Your task to perform on an android device: open the mobile data screen to see how much data has been used Image 0: 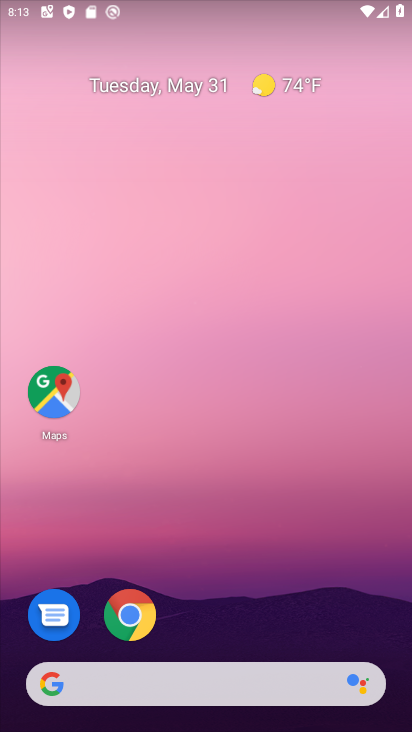
Step 0: drag from (145, 680) to (337, 37)
Your task to perform on an android device: open the mobile data screen to see how much data has been used Image 1: 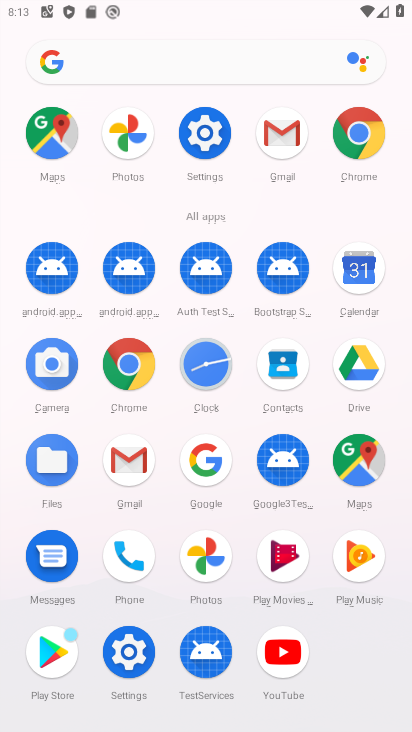
Step 1: click (212, 128)
Your task to perform on an android device: open the mobile data screen to see how much data has been used Image 2: 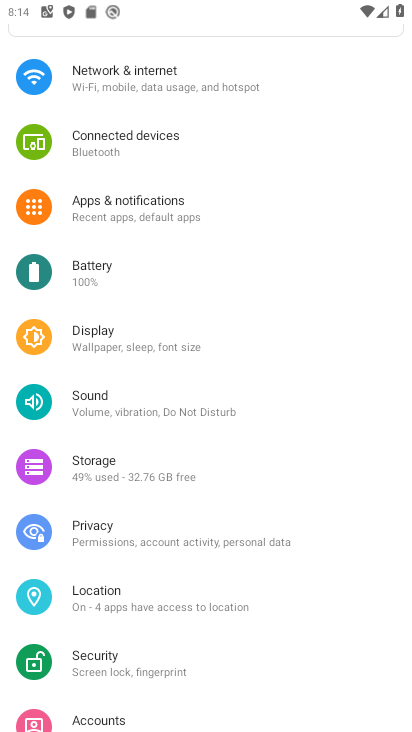
Step 2: click (154, 77)
Your task to perform on an android device: open the mobile data screen to see how much data has been used Image 3: 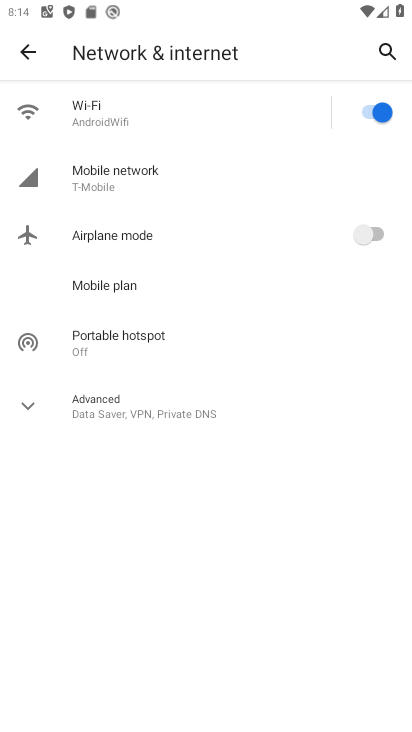
Step 3: click (107, 173)
Your task to perform on an android device: open the mobile data screen to see how much data has been used Image 4: 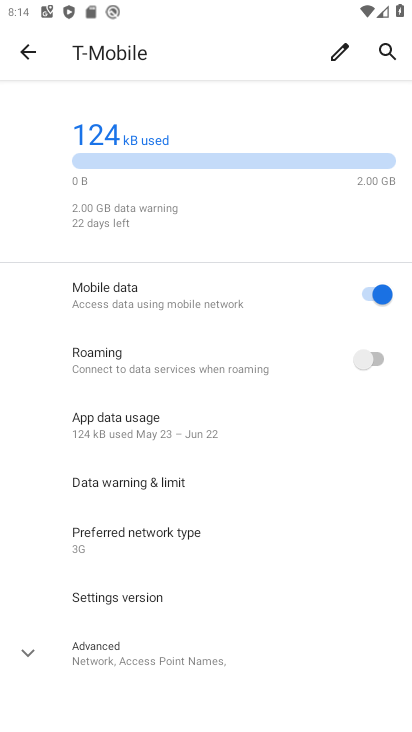
Step 4: task complete